Your task to perform on an android device: move a message to another label in the gmail app Image 0: 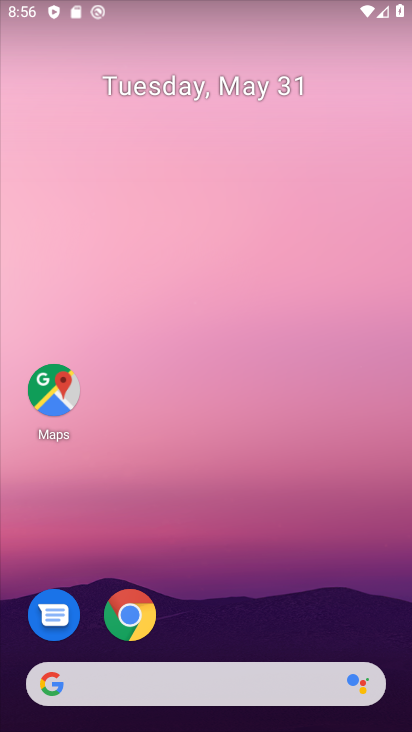
Step 0: drag from (350, 547) to (281, 0)
Your task to perform on an android device: move a message to another label in the gmail app Image 1: 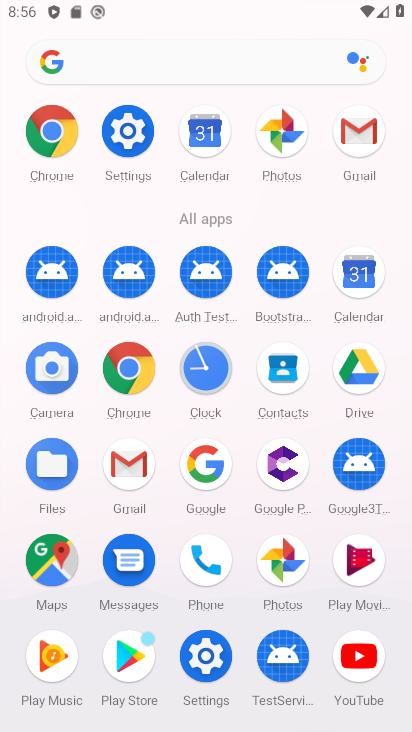
Step 1: click (361, 142)
Your task to perform on an android device: move a message to another label in the gmail app Image 2: 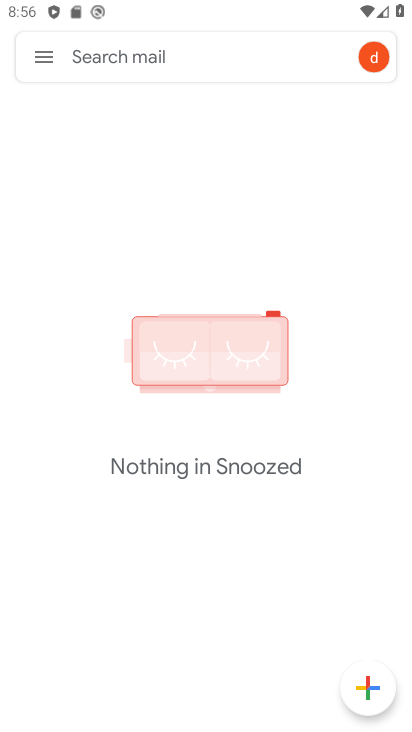
Step 2: click (47, 65)
Your task to perform on an android device: move a message to another label in the gmail app Image 3: 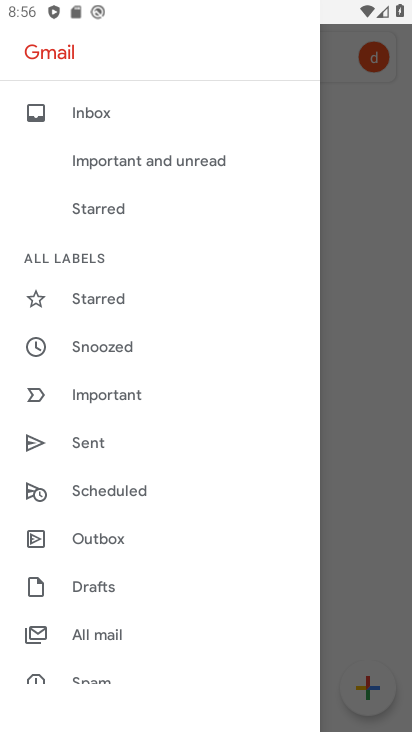
Step 3: click (106, 643)
Your task to perform on an android device: move a message to another label in the gmail app Image 4: 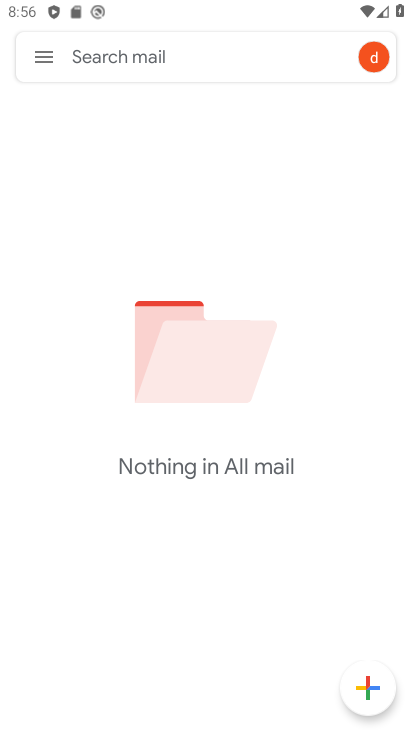
Step 4: task complete